Your task to perform on an android device: Open Maps and search for coffee Image 0: 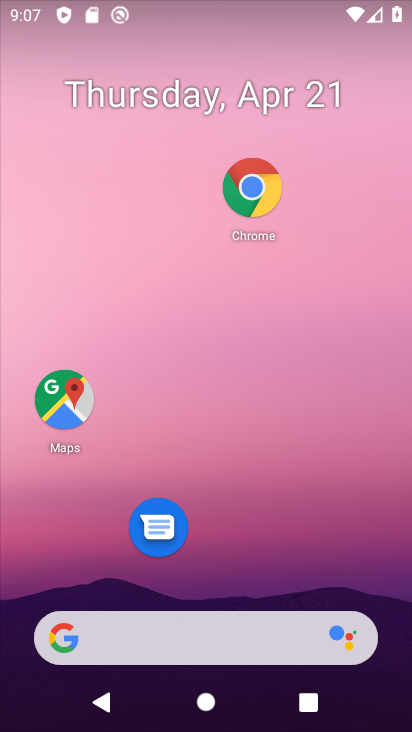
Step 0: drag from (272, 348) to (281, 193)
Your task to perform on an android device: Open Maps and search for coffee Image 1: 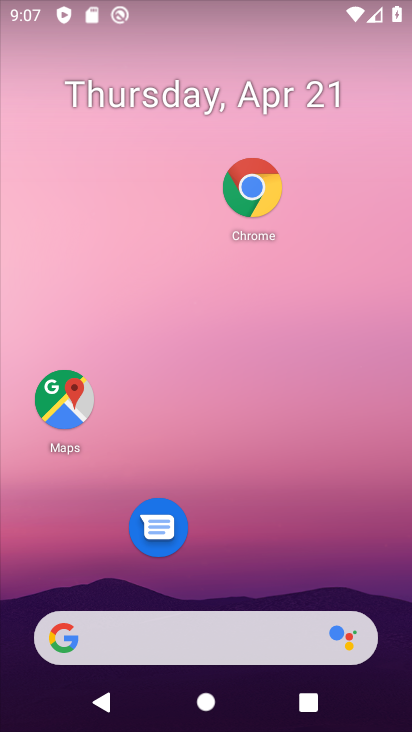
Step 1: drag from (297, 205) to (316, 46)
Your task to perform on an android device: Open Maps and search for coffee Image 2: 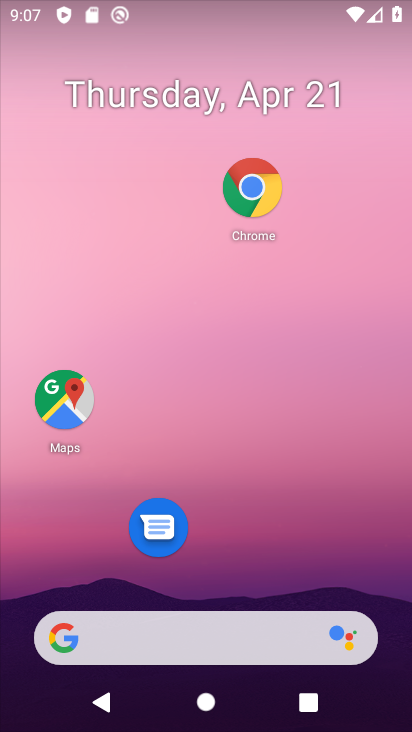
Step 2: drag from (283, 599) to (324, 203)
Your task to perform on an android device: Open Maps and search for coffee Image 3: 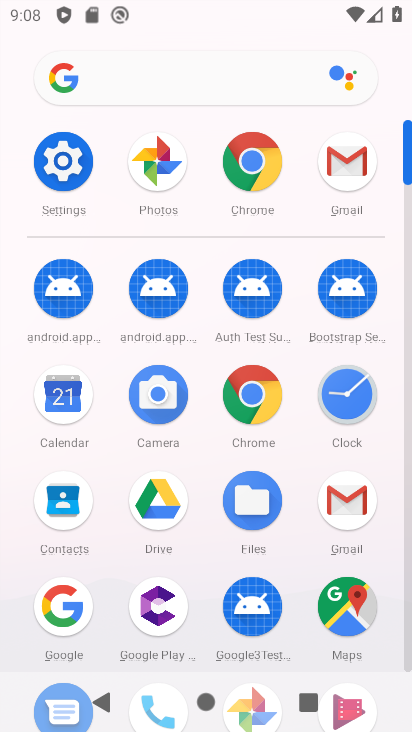
Step 3: click (335, 603)
Your task to perform on an android device: Open Maps and search for coffee Image 4: 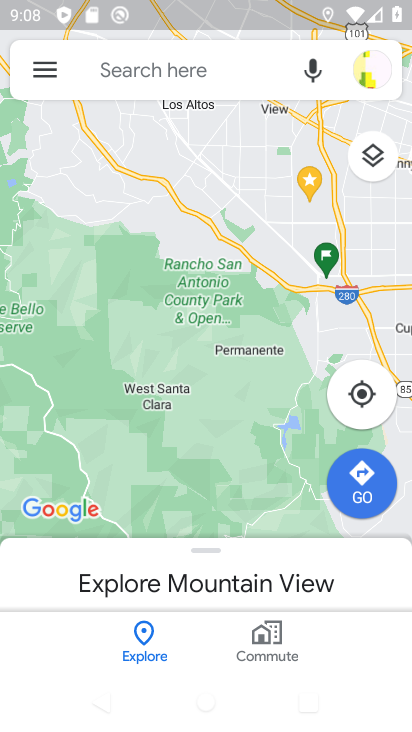
Step 4: click (234, 89)
Your task to perform on an android device: Open Maps and search for coffee Image 5: 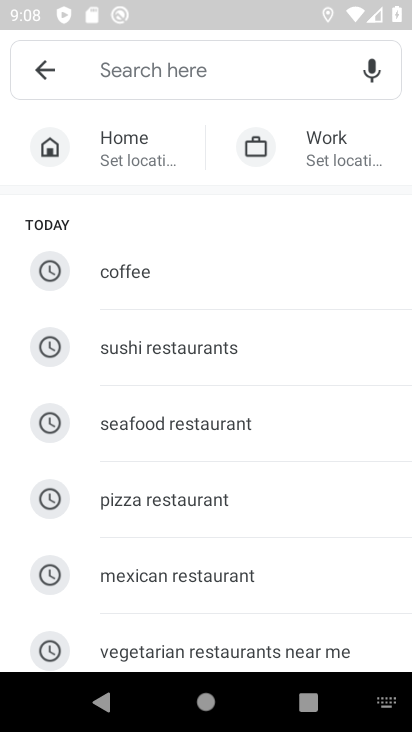
Step 5: click (186, 281)
Your task to perform on an android device: Open Maps and search for coffee Image 6: 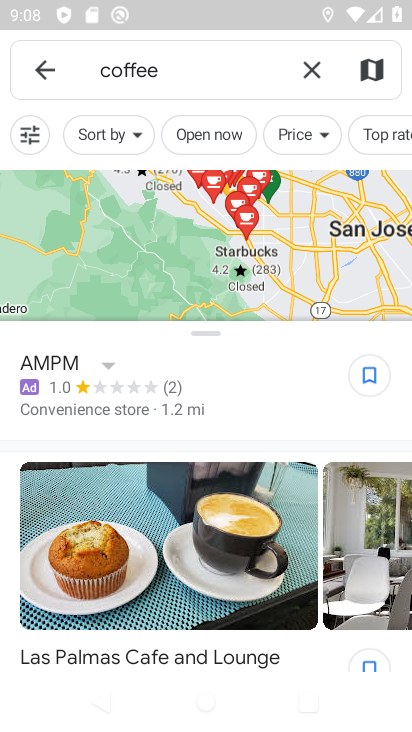
Step 6: task complete